Your task to perform on an android device: Open Google Chrome Image 0: 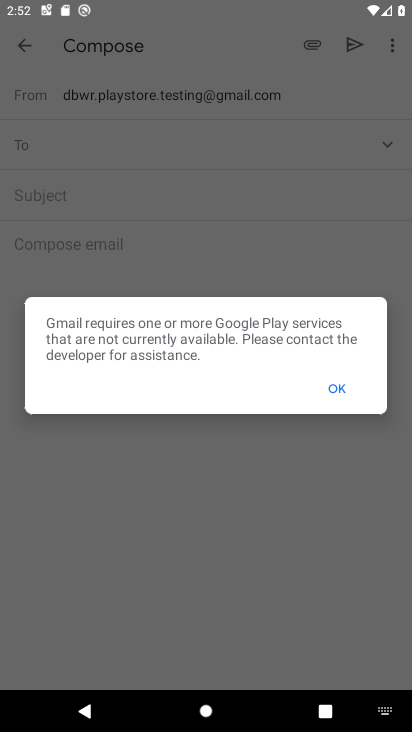
Step 0: press home button
Your task to perform on an android device: Open Google Chrome Image 1: 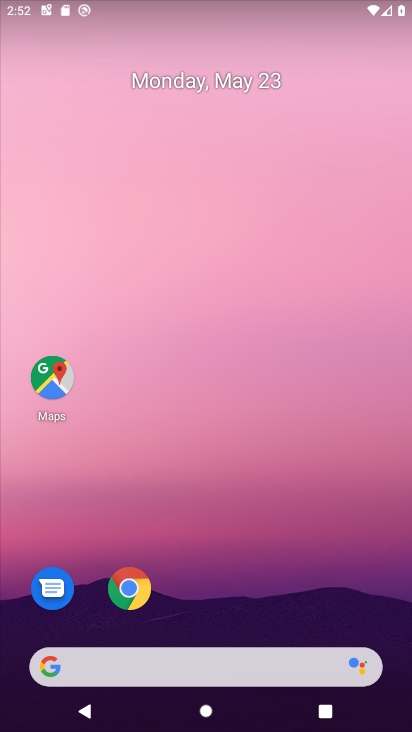
Step 1: click (131, 598)
Your task to perform on an android device: Open Google Chrome Image 2: 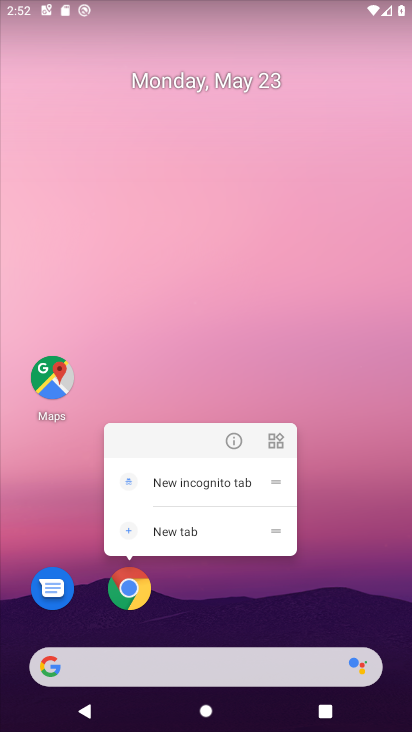
Step 2: click (236, 435)
Your task to perform on an android device: Open Google Chrome Image 3: 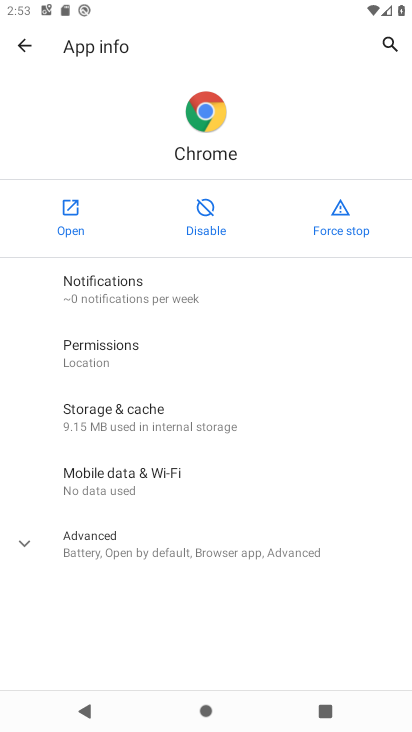
Step 3: click (60, 198)
Your task to perform on an android device: Open Google Chrome Image 4: 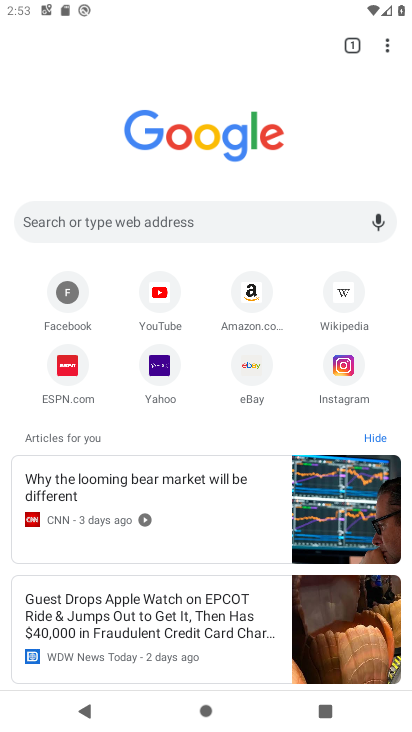
Step 4: task complete